Your task to perform on an android device: add a label to a message in the gmail app Image 0: 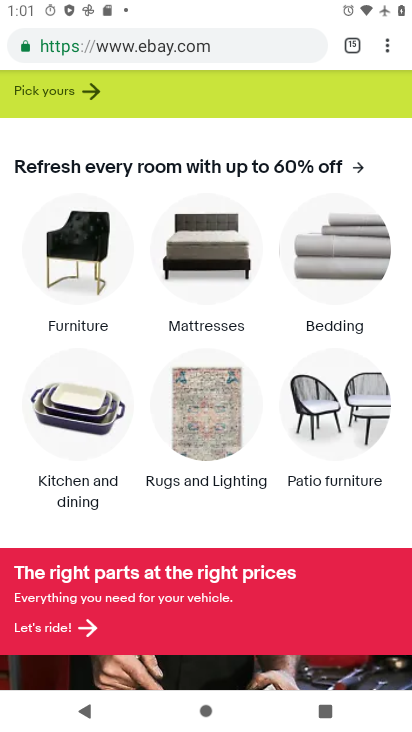
Step 0: press home button
Your task to perform on an android device: add a label to a message in the gmail app Image 1: 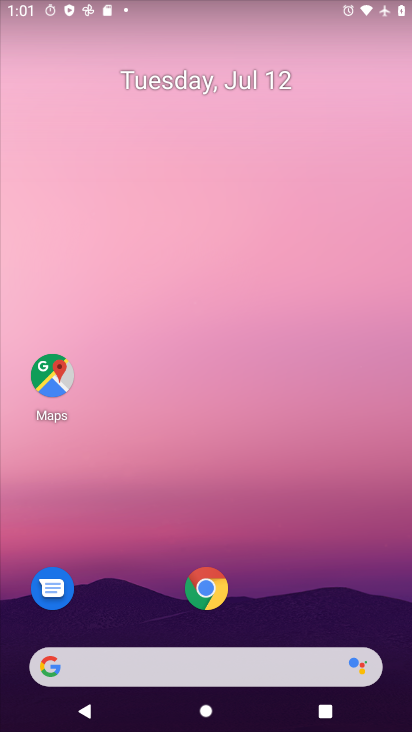
Step 1: drag from (214, 667) to (289, 95)
Your task to perform on an android device: add a label to a message in the gmail app Image 2: 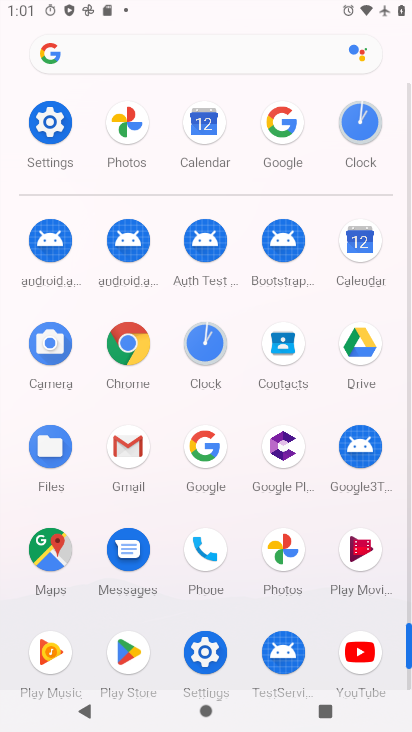
Step 2: click (128, 447)
Your task to perform on an android device: add a label to a message in the gmail app Image 3: 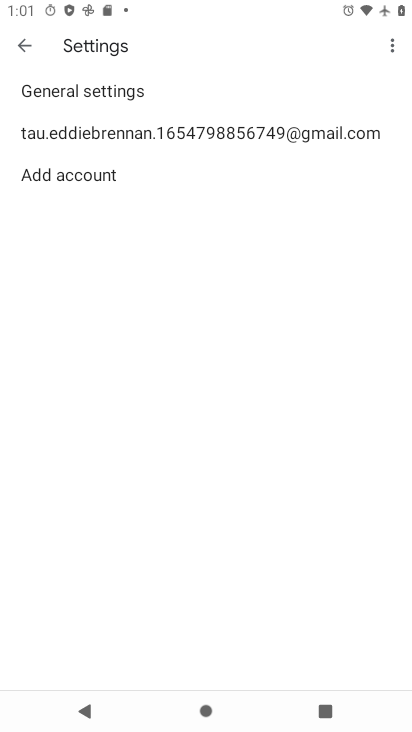
Step 3: click (197, 137)
Your task to perform on an android device: add a label to a message in the gmail app Image 4: 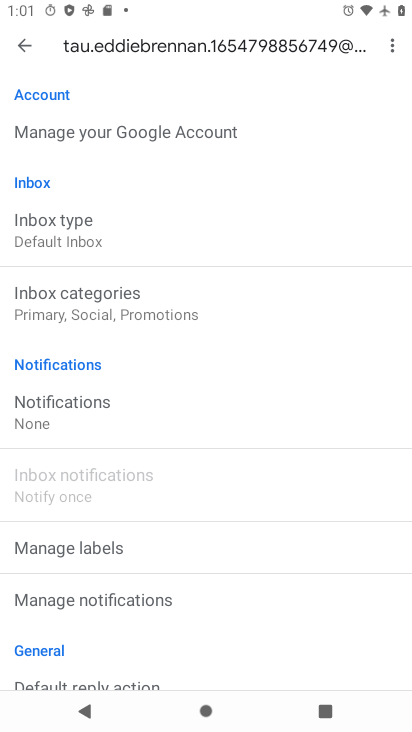
Step 4: click (35, 50)
Your task to perform on an android device: add a label to a message in the gmail app Image 5: 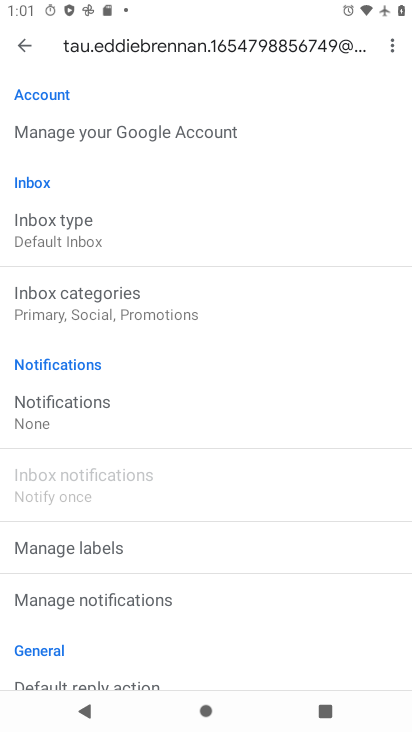
Step 5: click (35, 50)
Your task to perform on an android device: add a label to a message in the gmail app Image 6: 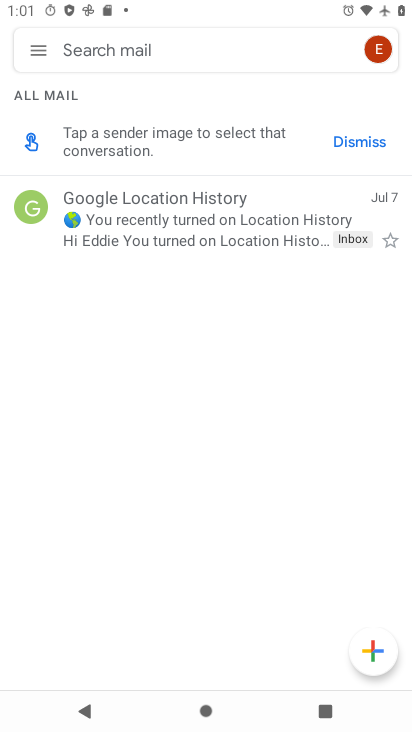
Step 6: click (27, 49)
Your task to perform on an android device: add a label to a message in the gmail app Image 7: 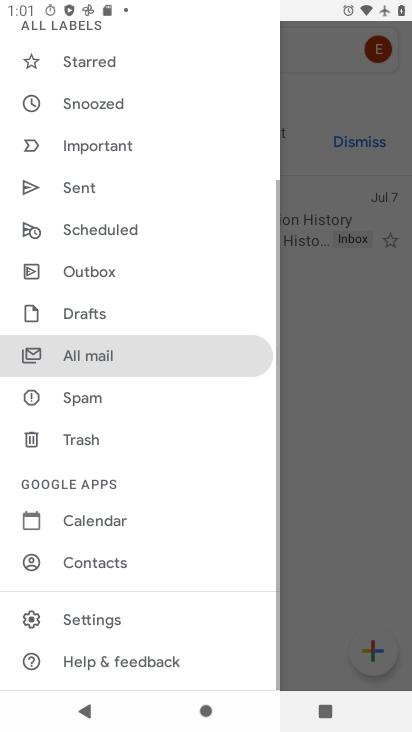
Step 7: click (339, 308)
Your task to perform on an android device: add a label to a message in the gmail app Image 8: 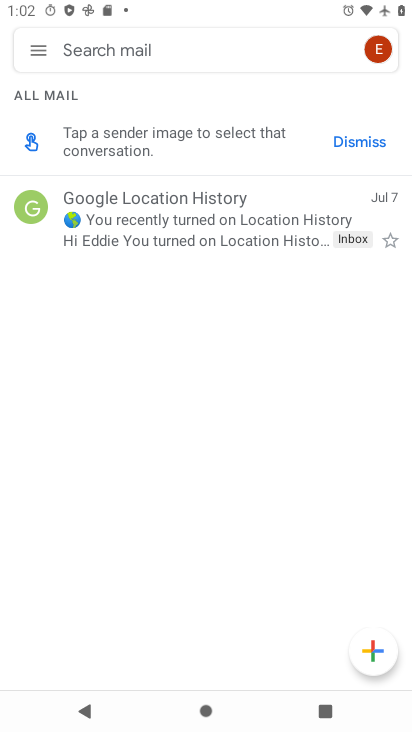
Step 8: click (31, 207)
Your task to perform on an android device: add a label to a message in the gmail app Image 9: 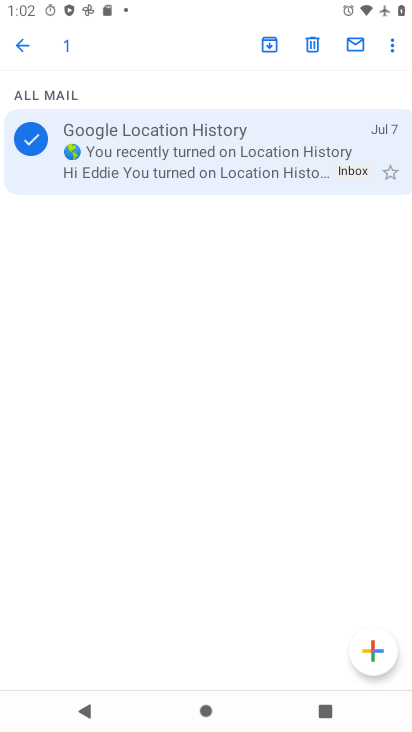
Step 9: click (392, 37)
Your task to perform on an android device: add a label to a message in the gmail app Image 10: 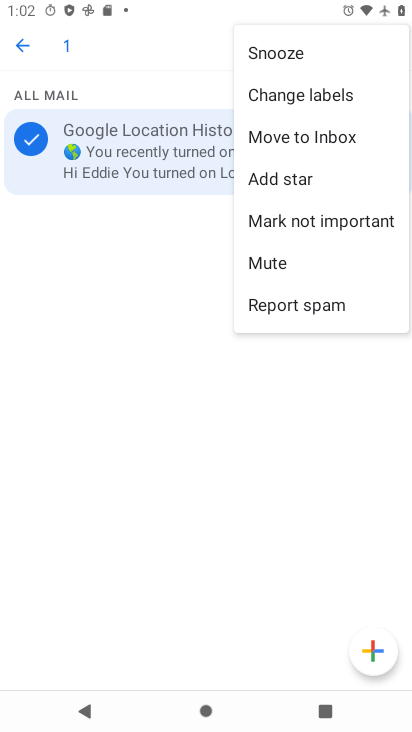
Step 10: click (291, 93)
Your task to perform on an android device: add a label to a message in the gmail app Image 11: 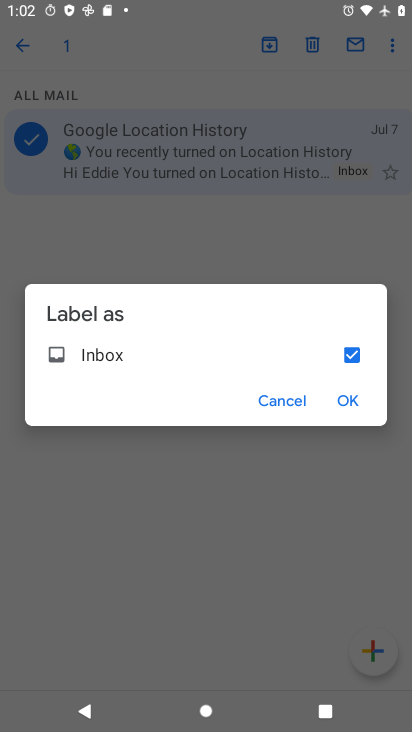
Step 11: task complete